Your task to perform on an android device: Go to Yahoo.com Image 0: 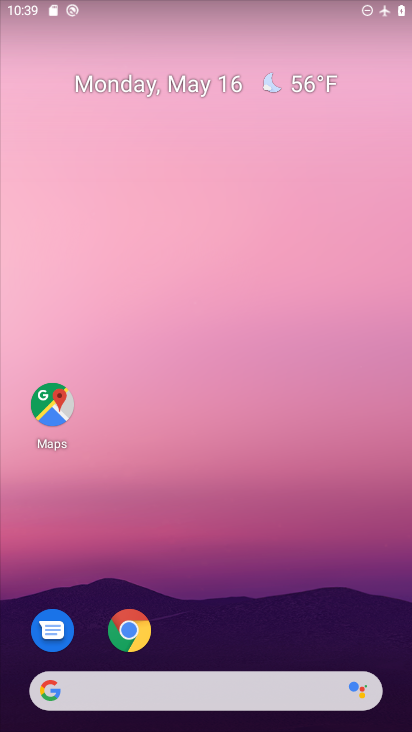
Step 0: click (305, 682)
Your task to perform on an android device: Go to Yahoo.com Image 1: 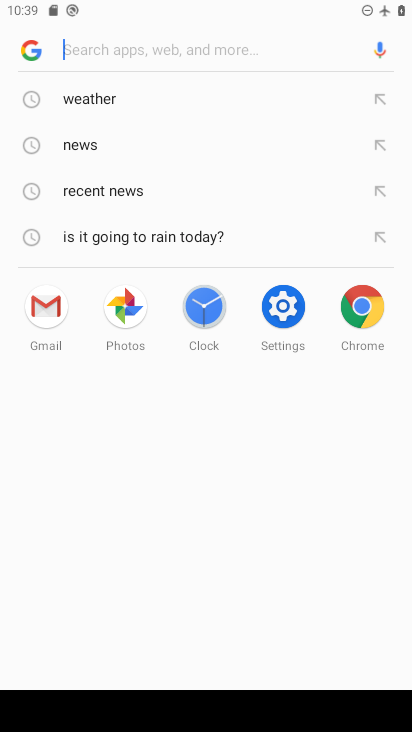
Step 1: type "yahoo.com"
Your task to perform on an android device: Go to Yahoo.com Image 2: 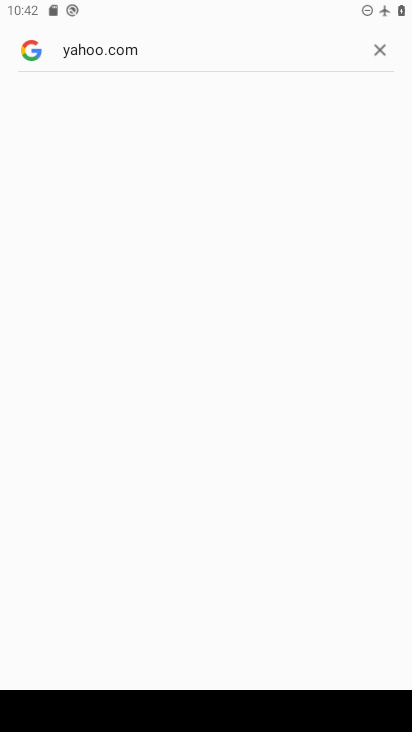
Step 2: task complete